Your task to perform on an android device: delete the emails in spam in the gmail app Image 0: 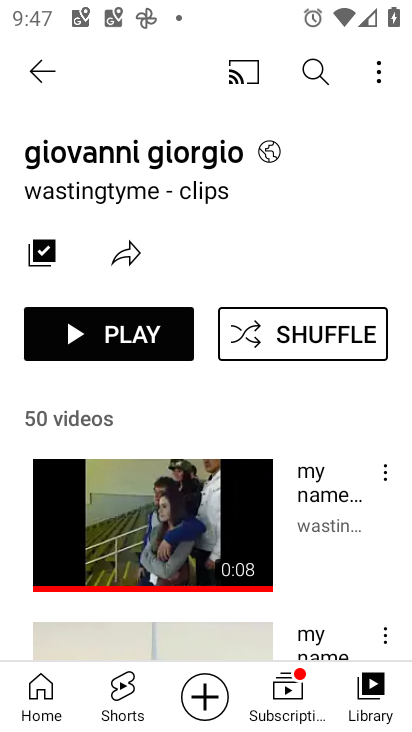
Step 0: press home button
Your task to perform on an android device: delete the emails in spam in the gmail app Image 1: 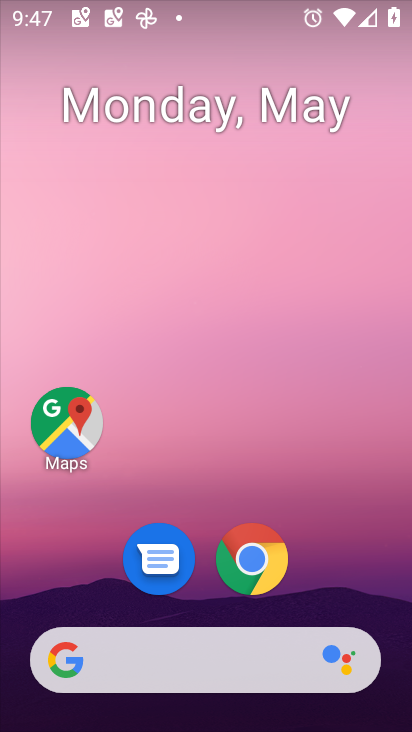
Step 1: drag from (396, 652) to (296, 91)
Your task to perform on an android device: delete the emails in spam in the gmail app Image 2: 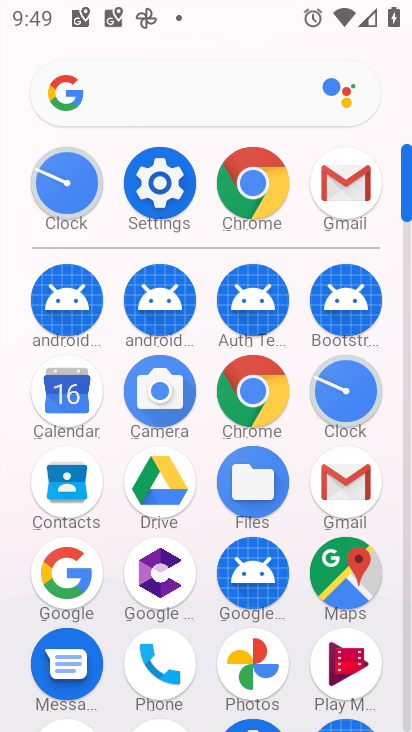
Step 2: click (328, 477)
Your task to perform on an android device: delete the emails in spam in the gmail app Image 3: 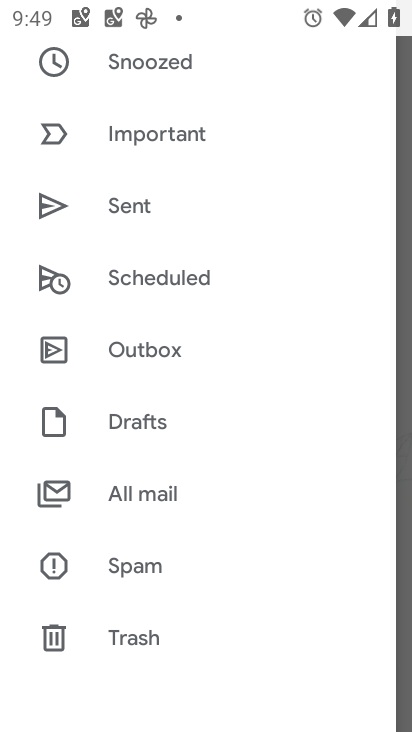
Step 3: click (136, 583)
Your task to perform on an android device: delete the emails in spam in the gmail app Image 4: 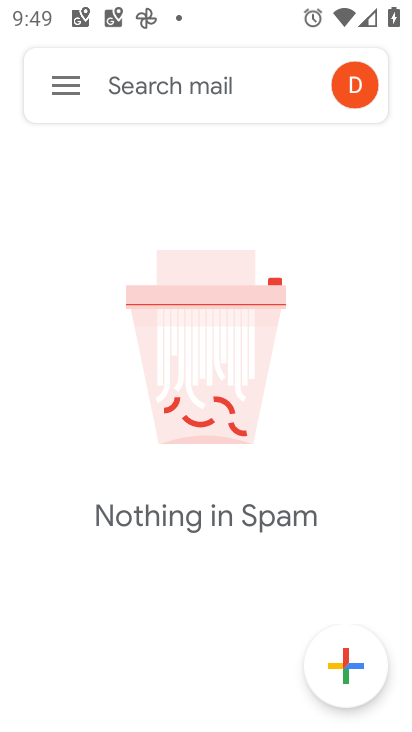
Step 4: task complete